Your task to perform on an android device: toggle sleep mode Image 0: 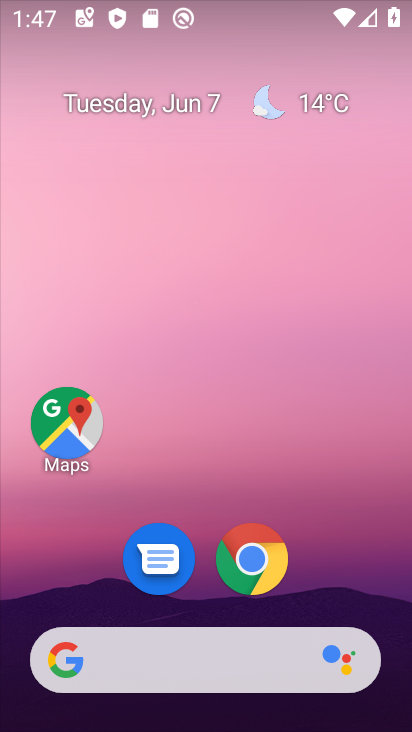
Step 0: drag from (333, 539) to (291, 22)
Your task to perform on an android device: toggle sleep mode Image 1: 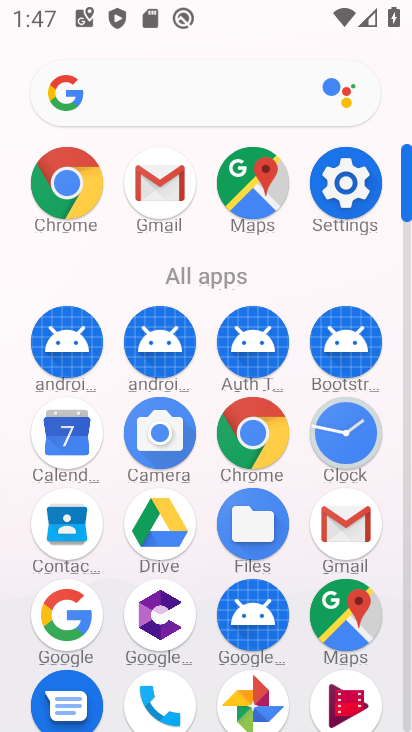
Step 1: drag from (14, 619) to (33, 278)
Your task to perform on an android device: toggle sleep mode Image 2: 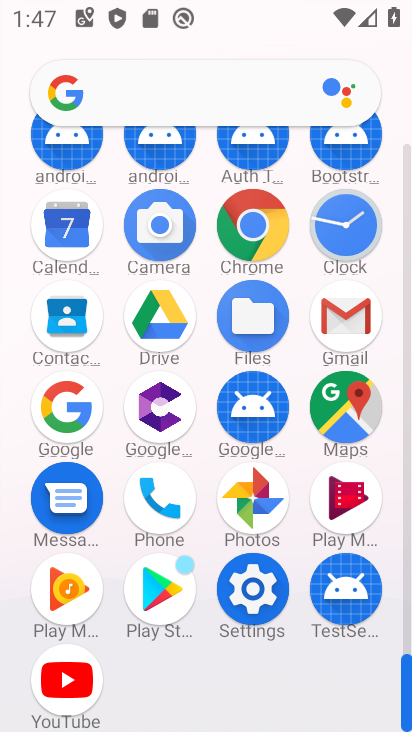
Step 2: click (254, 587)
Your task to perform on an android device: toggle sleep mode Image 3: 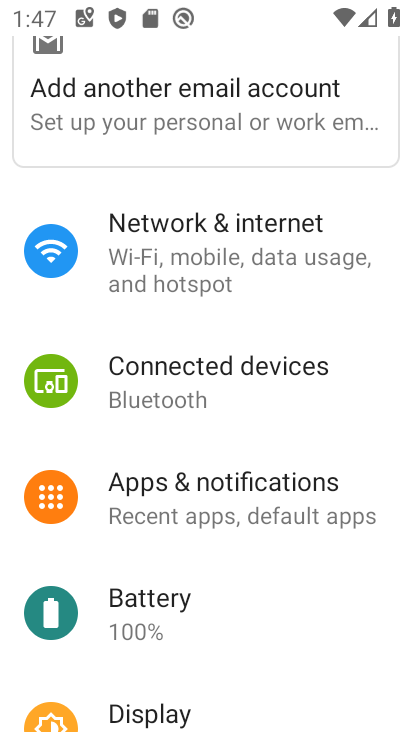
Step 3: click (294, 264)
Your task to perform on an android device: toggle sleep mode Image 4: 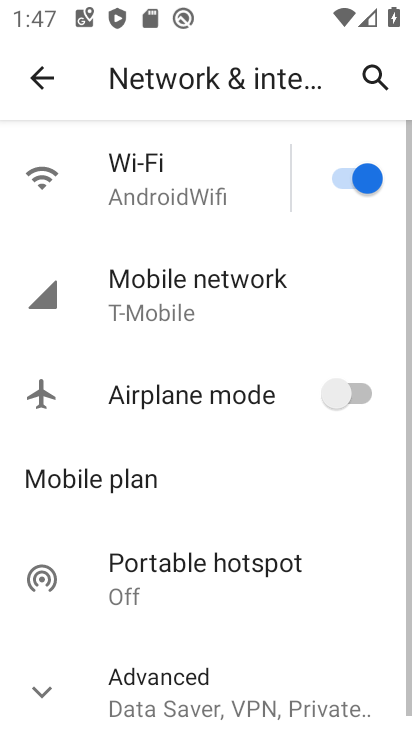
Step 4: click (35, 77)
Your task to perform on an android device: toggle sleep mode Image 5: 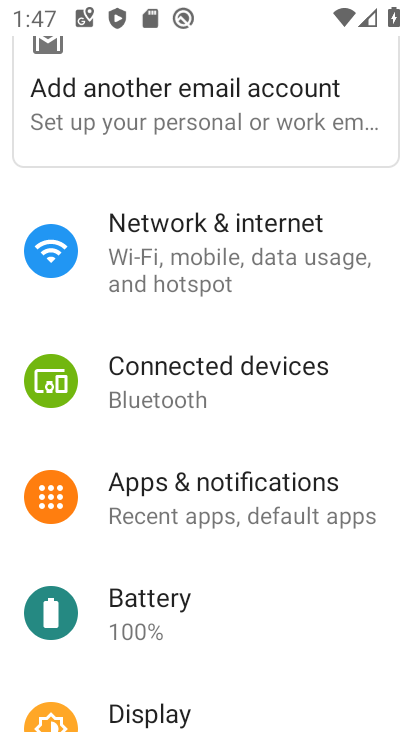
Step 5: drag from (247, 568) to (263, 250)
Your task to perform on an android device: toggle sleep mode Image 6: 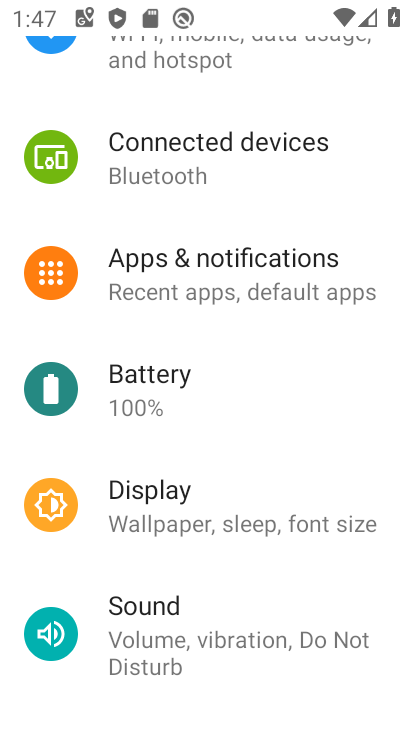
Step 6: click (240, 503)
Your task to perform on an android device: toggle sleep mode Image 7: 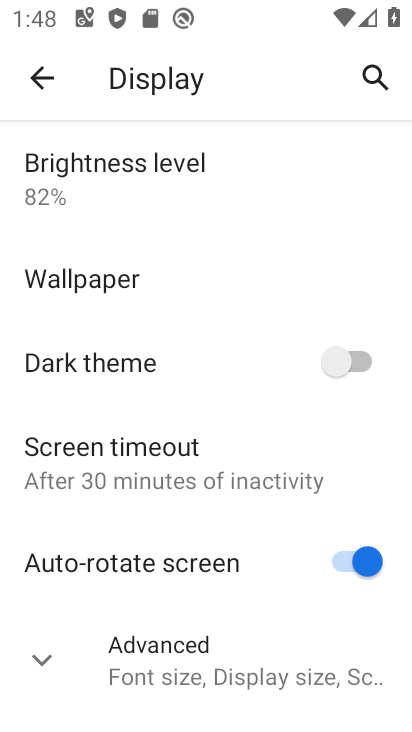
Step 7: click (40, 669)
Your task to perform on an android device: toggle sleep mode Image 8: 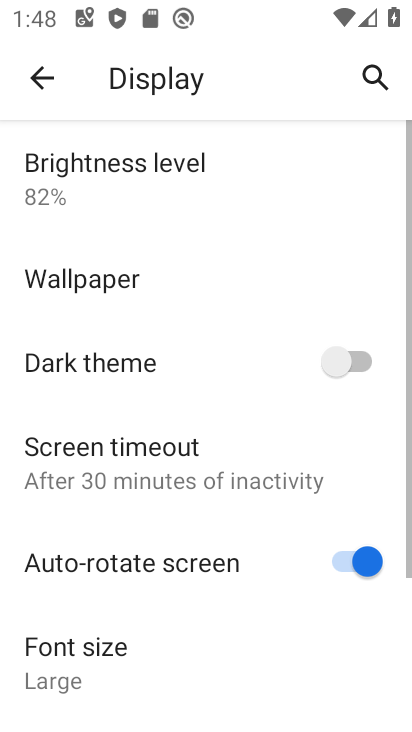
Step 8: task complete